Your task to perform on an android device: Go to internet settings Image 0: 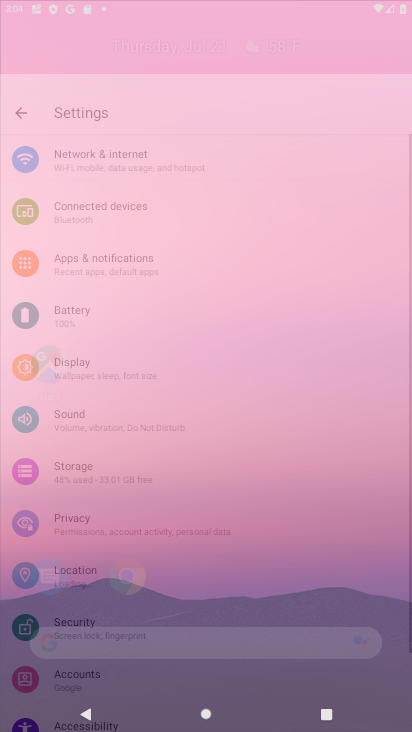
Step 0: press home button
Your task to perform on an android device: Go to internet settings Image 1: 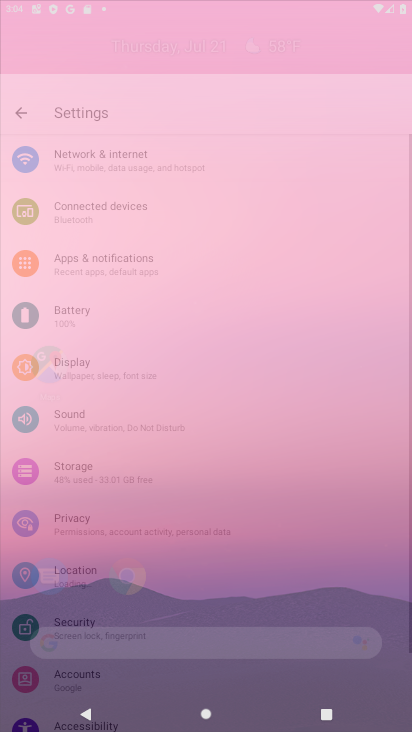
Step 1: click (285, 13)
Your task to perform on an android device: Go to internet settings Image 2: 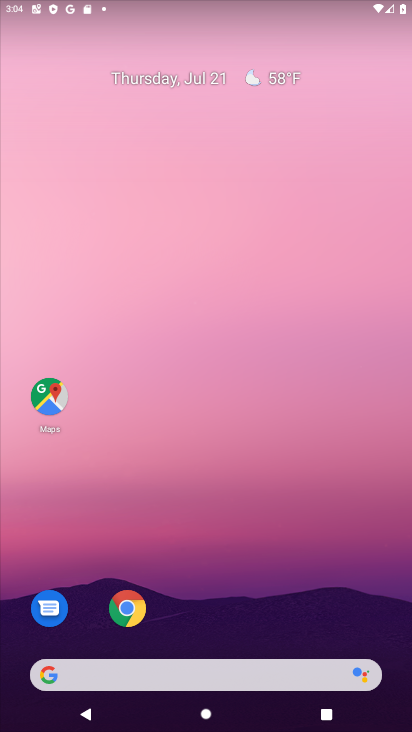
Step 2: drag from (228, 634) to (295, 12)
Your task to perform on an android device: Go to internet settings Image 3: 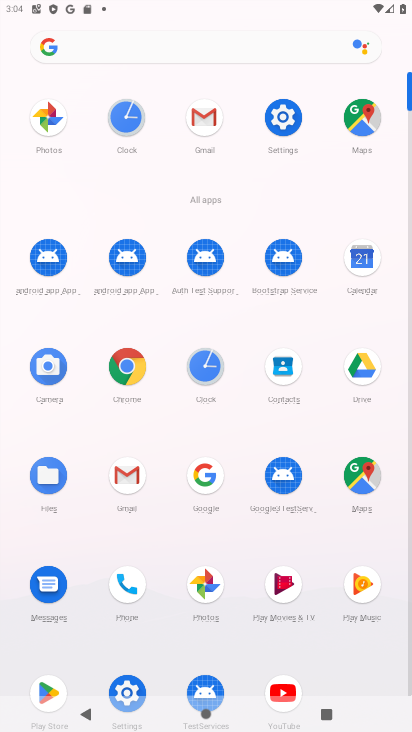
Step 3: click (280, 117)
Your task to perform on an android device: Go to internet settings Image 4: 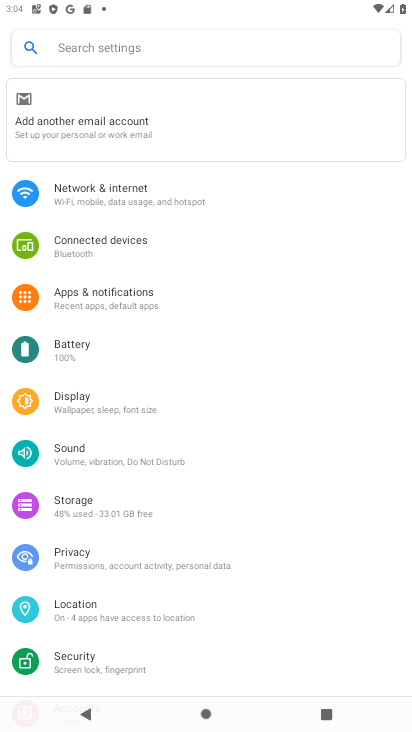
Step 4: click (140, 188)
Your task to perform on an android device: Go to internet settings Image 5: 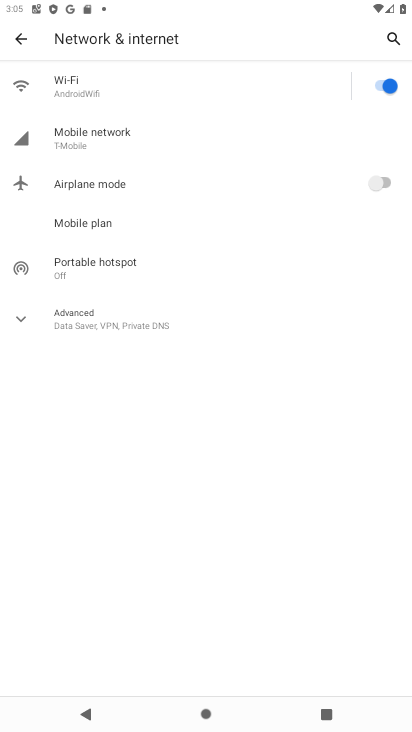
Step 5: click (21, 319)
Your task to perform on an android device: Go to internet settings Image 6: 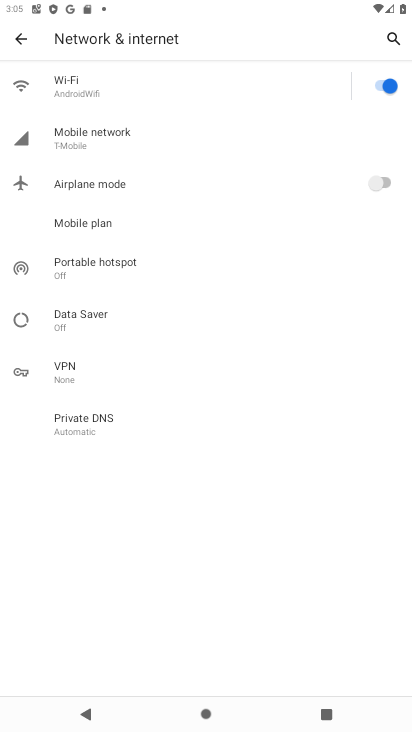
Step 6: task complete